Your task to perform on an android device: When is my next appointment? Image 0: 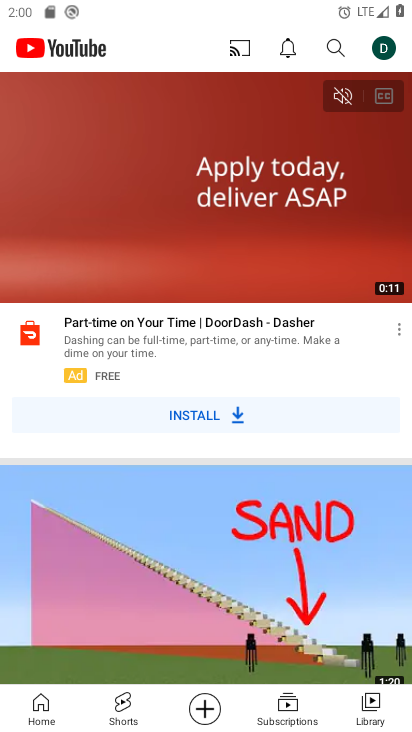
Step 0: press home button
Your task to perform on an android device: When is my next appointment? Image 1: 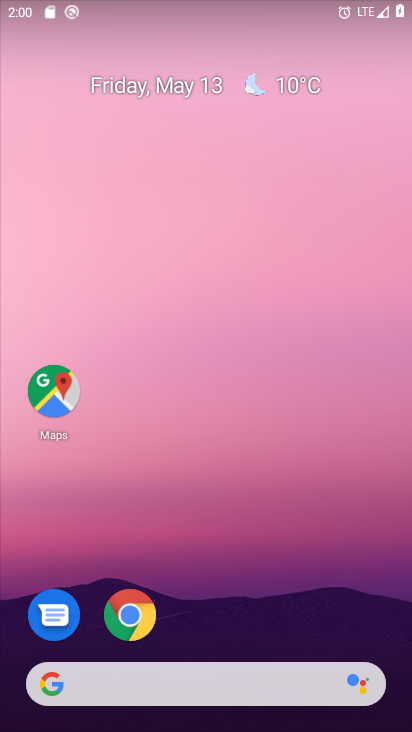
Step 1: drag from (266, 597) to (215, 104)
Your task to perform on an android device: When is my next appointment? Image 2: 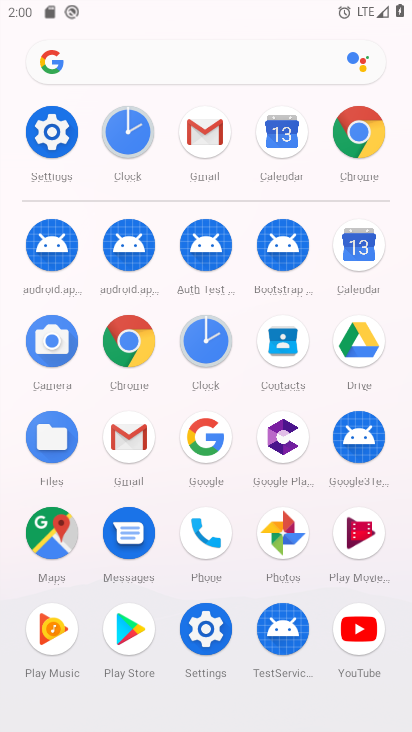
Step 2: click (287, 143)
Your task to perform on an android device: When is my next appointment? Image 3: 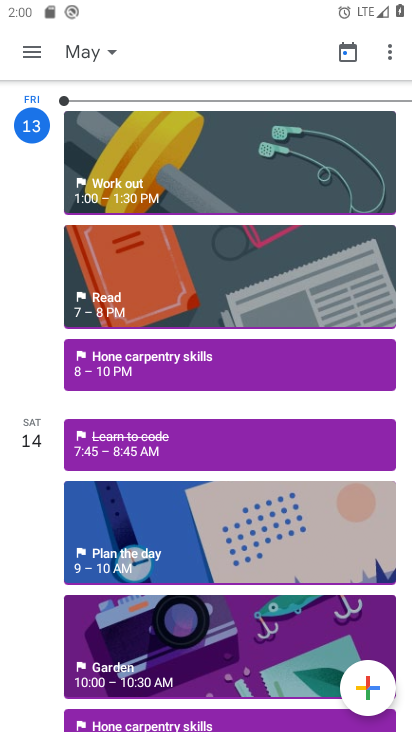
Step 3: click (238, 172)
Your task to perform on an android device: When is my next appointment? Image 4: 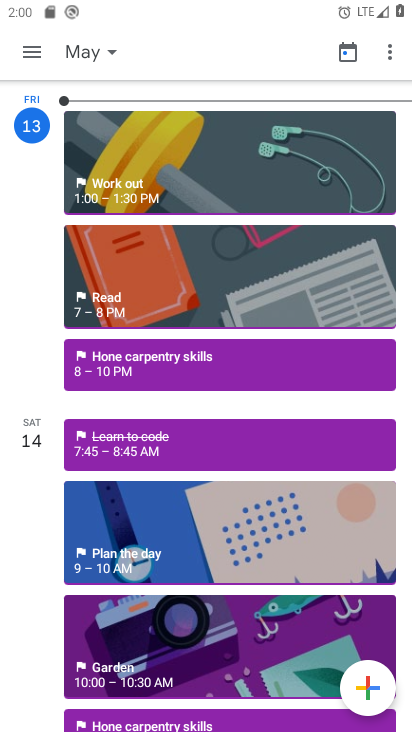
Step 4: task complete